Your task to perform on an android device: Open the phone app and click the voicemail tab. Image 0: 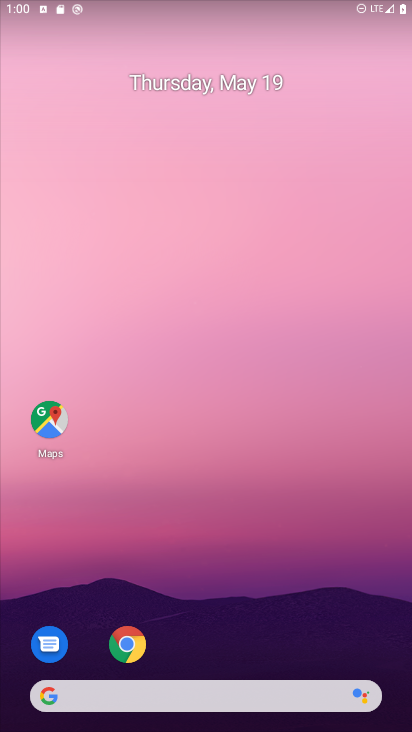
Step 0: drag from (314, 619) to (222, 53)
Your task to perform on an android device: Open the phone app and click the voicemail tab. Image 1: 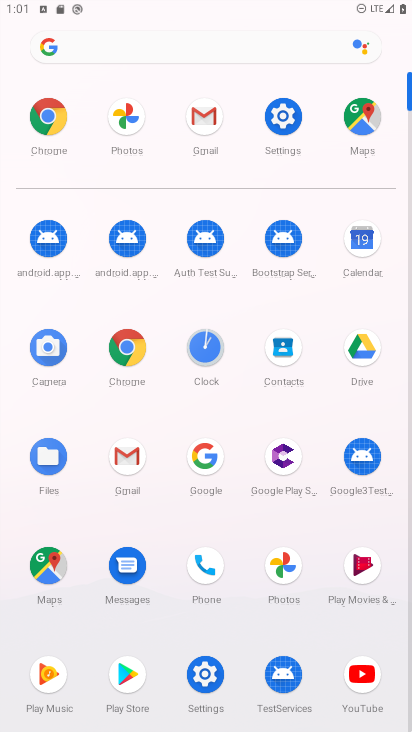
Step 1: click (193, 574)
Your task to perform on an android device: Open the phone app and click the voicemail tab. Image 2: 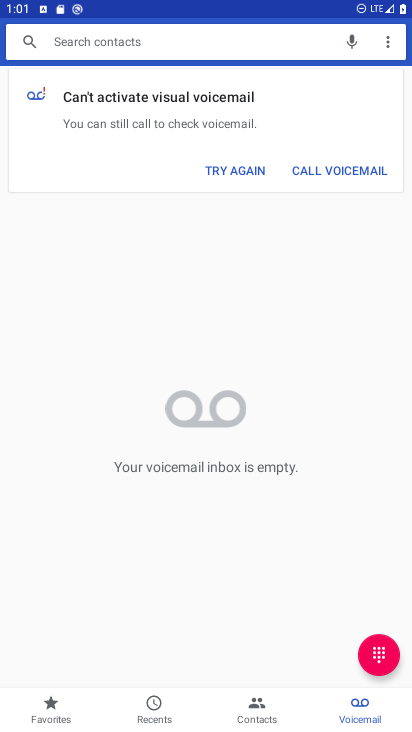
Step 2: task complete